Your task to perform on an android device: turn on location history Image 0: 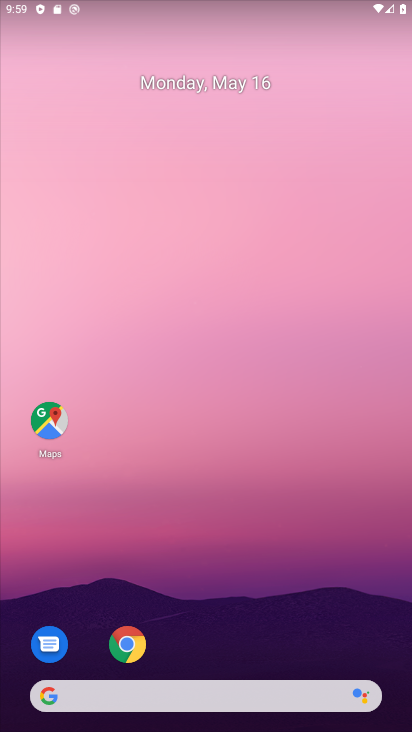
Step 0: drag from (186, 655) to (260, 198)
Your task to perform on an android device: turn on location history Image 1: 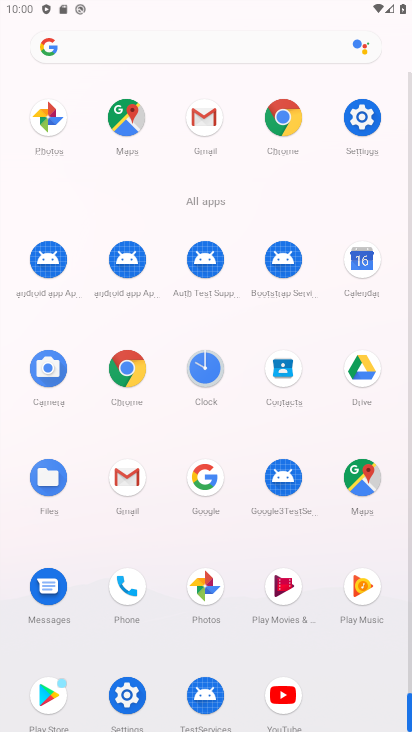
Step 1: click (127, 700)
Your task to perform on an android device: turn on location history Image 2: 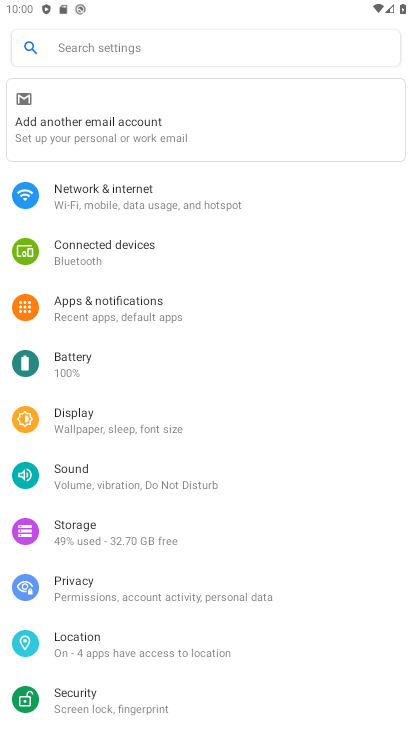
Step 2: click (126, 650)
Your task to perform on an android device: turn on location history Image 3: 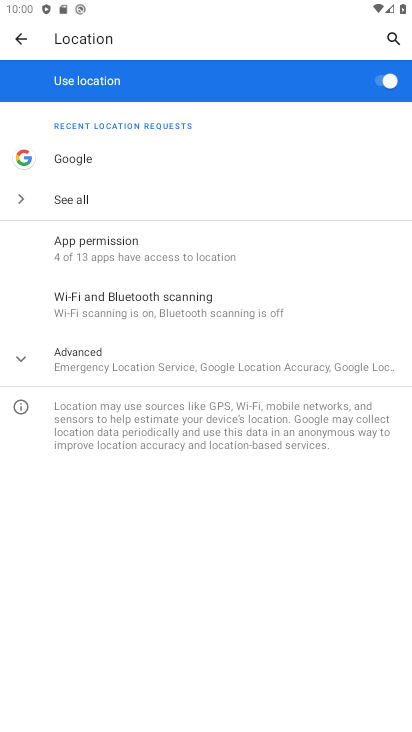
Step 3: click (181, 369)
Your task to perform on an android device: turn on location history Image 4: 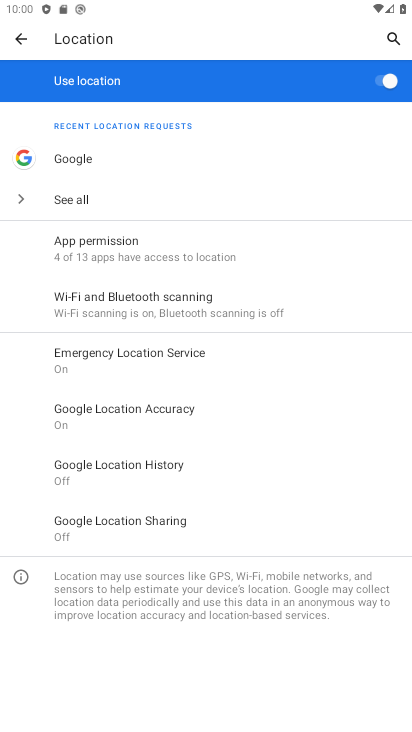
Step 4: click (179, 474)
Your task to perform on an android device: turn on location history Image 5: 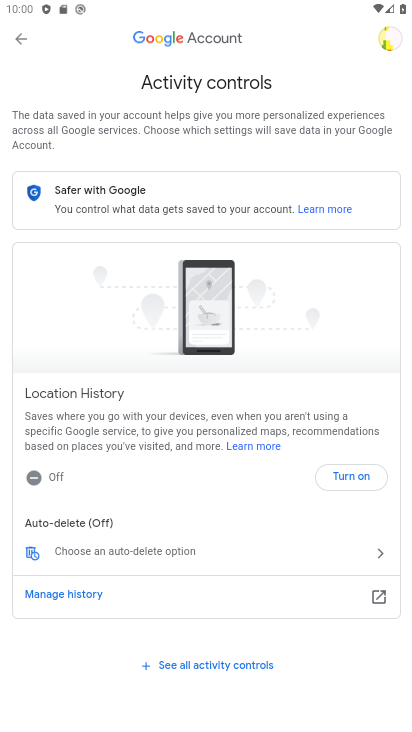
Step 5: click (348, 481)
Your task to perform on an android device: turn on location history Image 6: 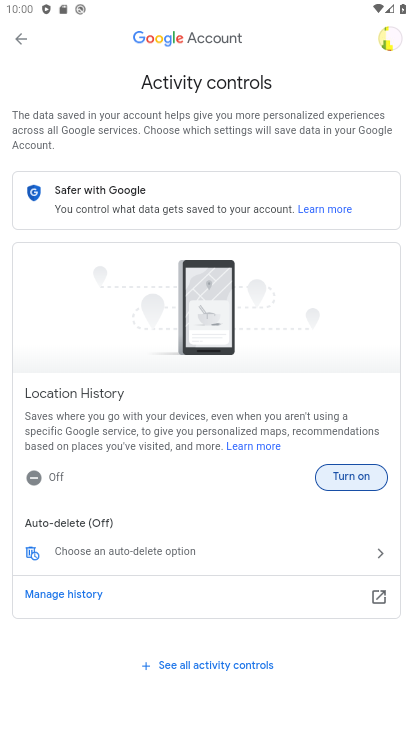
Step 6: click (364, 481)
Your task to perform on an android device: turn on location history Image 7: 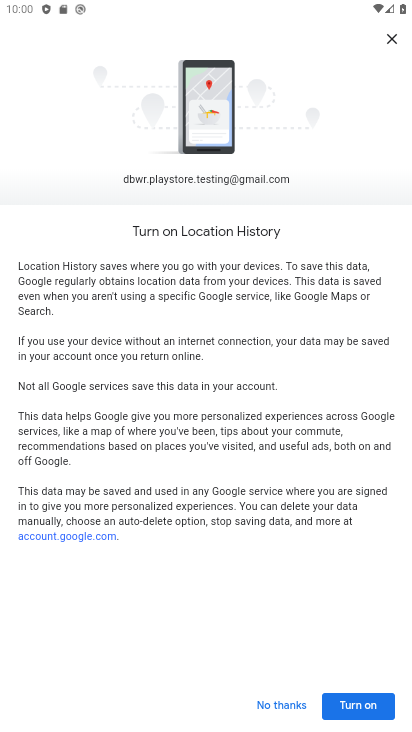
Step 7: click (356, 709)
Your task to perform on an android device: turn on location history Image 8: 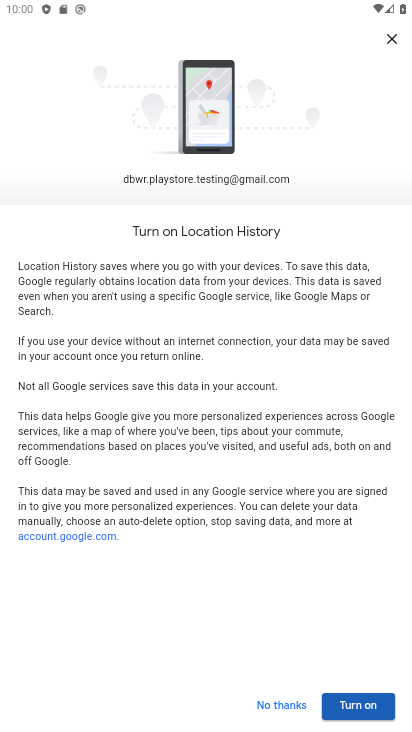
Step 8: click (356, 709)
Your task to perform on an android device: turn on location history Image 9: 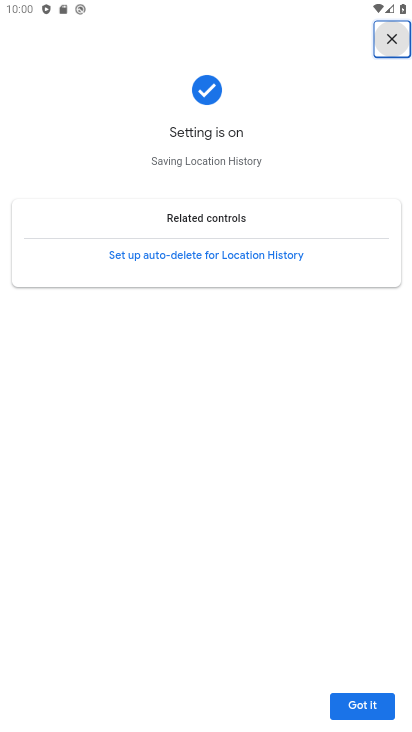
Step 9: click (356, 709)
Your task to perform on an android device: turn on location history Image 10: 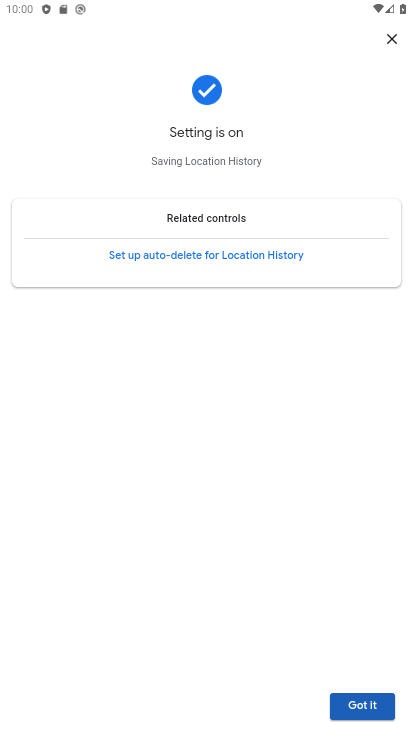
Step 10: click (392, 711)
Your task to perform on an android device: turn on location history Image 11: 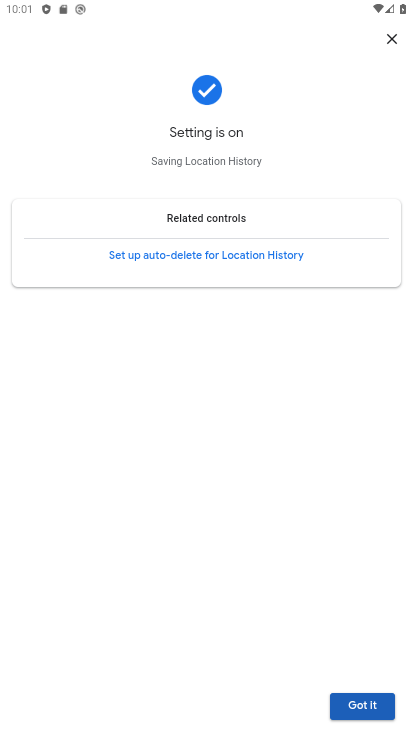
Step 11: click (362, 708)
Your task to perform on an android device: turn on location history Image 12: 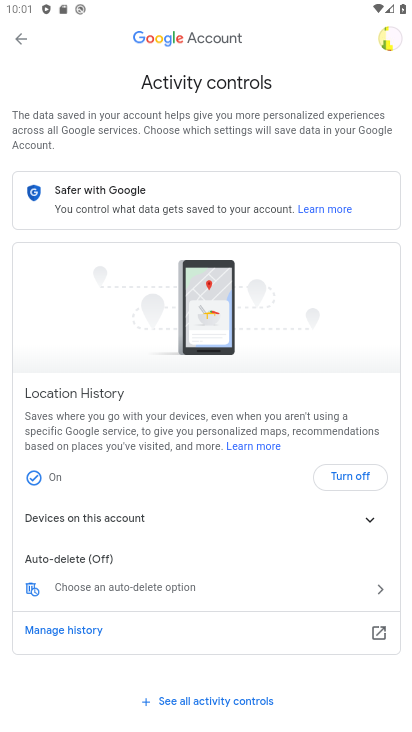
Step 12: task complete